Your task to perform on an android device: Open Yahoo.com Image 0: 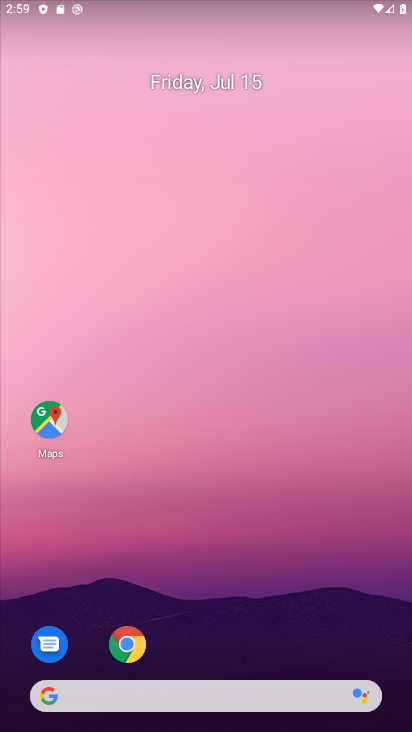
Step 0: drag from (381, 333) to (342, 6)
Your task to perform on an android device: Open Yahoo.com Image 1: 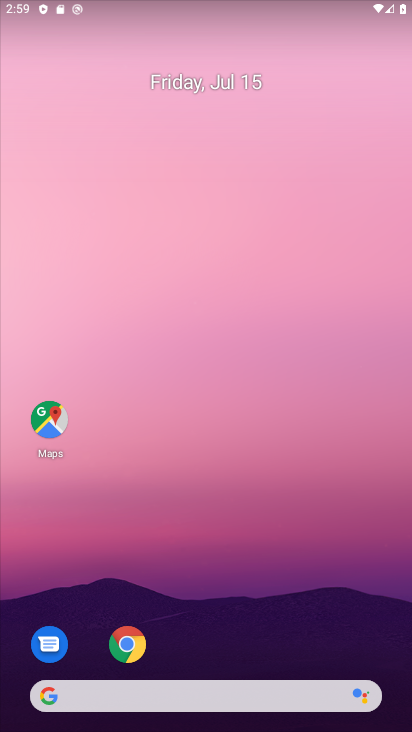
Step 1: drag from (216, 665) to (309, 0)
Your task to perform on an android device: Open Yahoo.com Image 2: 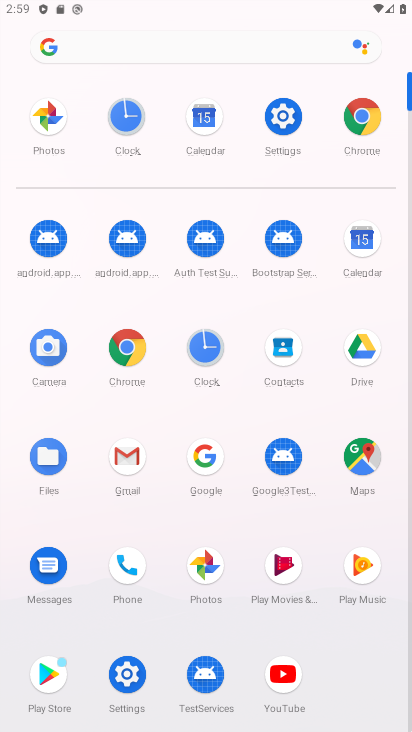
Step 2: click (125, 351)
Your task to perform on an android device: Open Yahoo.com Image 3: 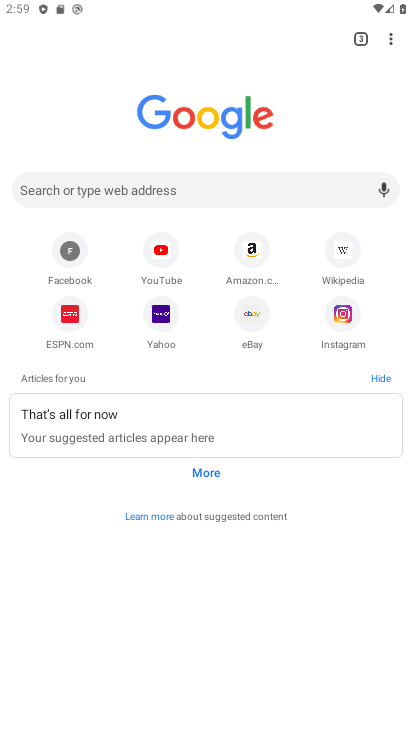
Step 3: click (172, 326)
Your task to perform on an android device: Open Yahoo.com Image 4: 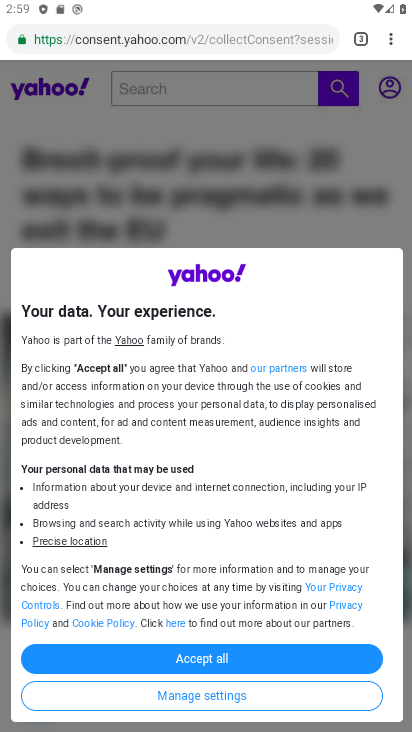
Step 4: task complete